Your task to perform on an android device: star an email in the gmail app Image 0: 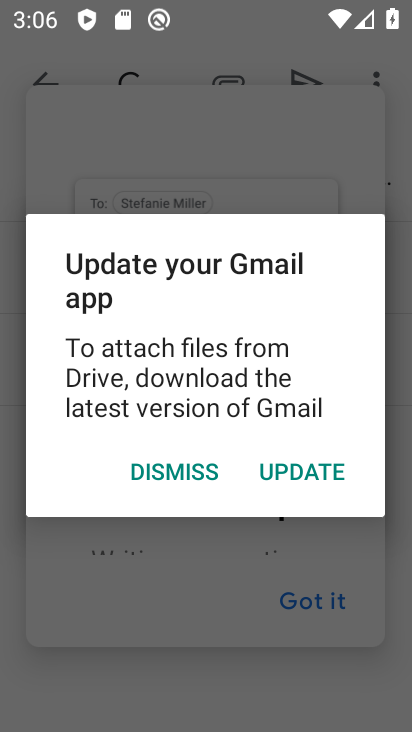
Step 0: press home button
Your task to perform on an android device: star an email in the gmail app Image 1: 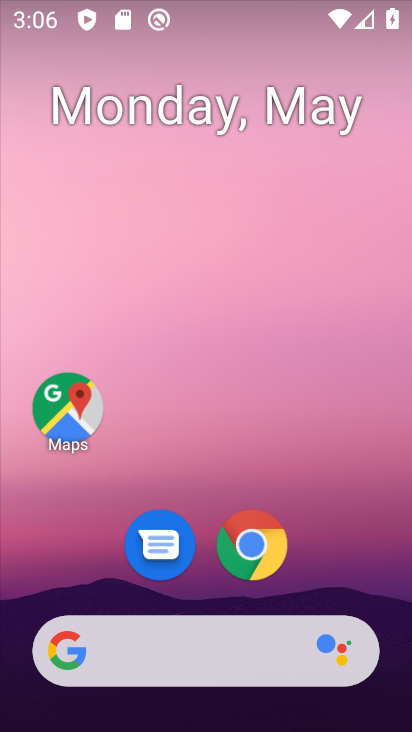
Step 1: drag from (311, 544) to (321, 107)
Your task to perform on an android device: star an email in the gmail app Image 2: 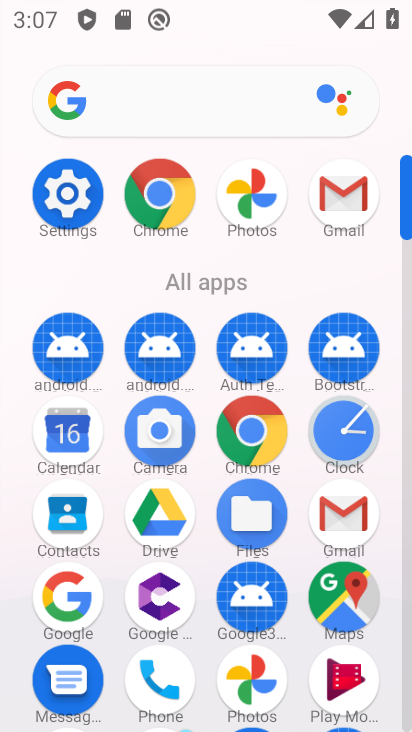
Step 2: click (351, 512)
Your task to perform on an android device: star an email in the gmail app Image 3: 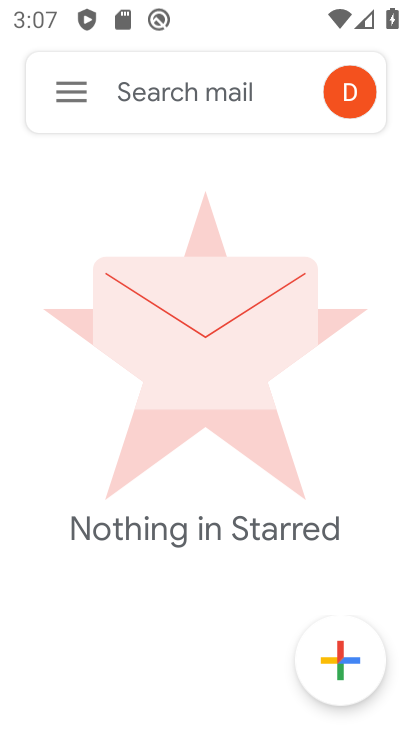
Step 3: click (81, 106)
Your task to perform on an android device: star an email in the gmail app Image 4: 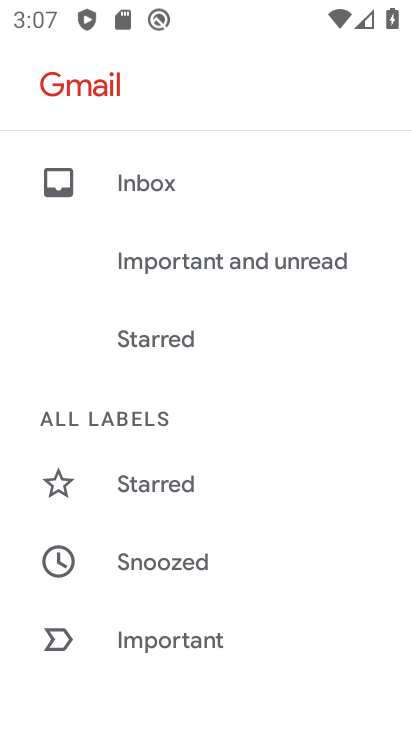
Step 4: click (117, 178)
Your task to perform on an android device: star an email in the gmail app Image 5: 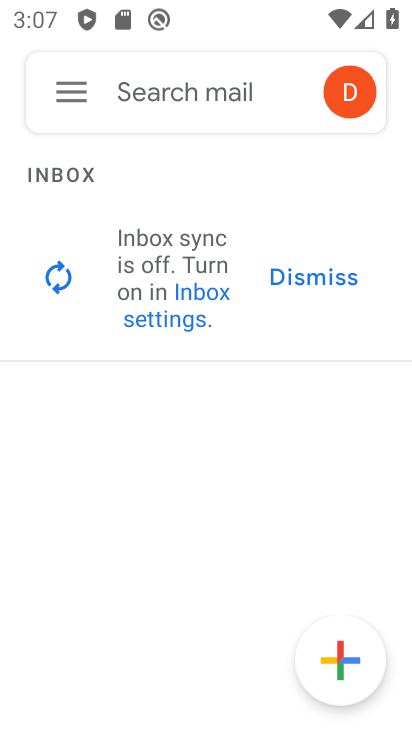
Step 5: task complete